Your task to perform on an android device: snooze an email in the gmail app Image 0: 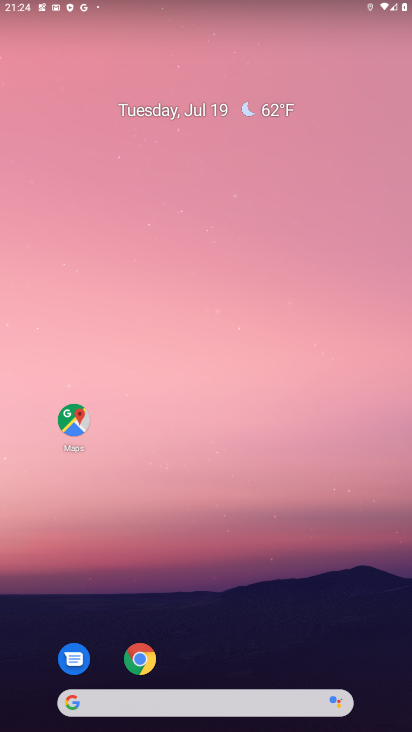
Step 0: press home button
Your task to perform on an android device: snooze an email in the gmail app Image 1: 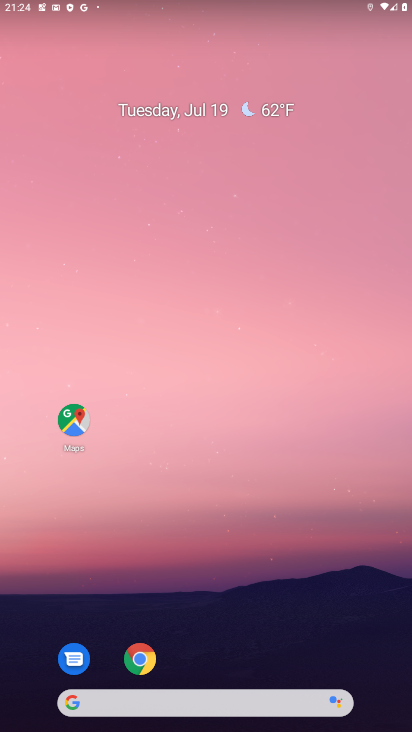
Step 1: drag from (310, 645) to (370, 0)
Your task to perform on an android device: snooze an email in the gmail app Image 2: 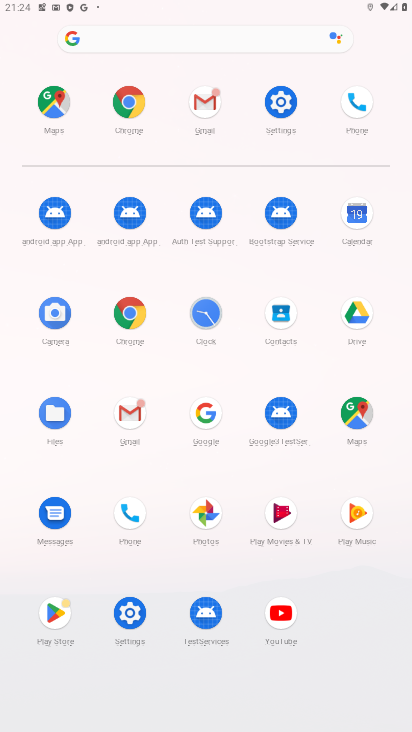
Step 2: click (213, 133)
Your task to perform on an android device: snooze an email in the gmail app Image 3: 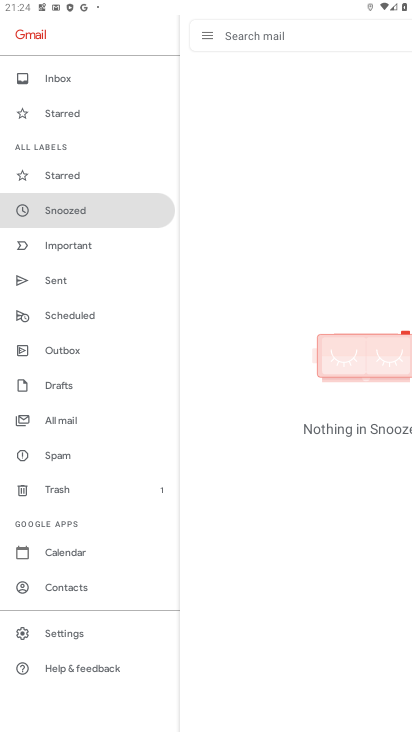
Step 3: click (37, 77)
Your task to perform on an android device: snooze an email in the gmail app Image 4: 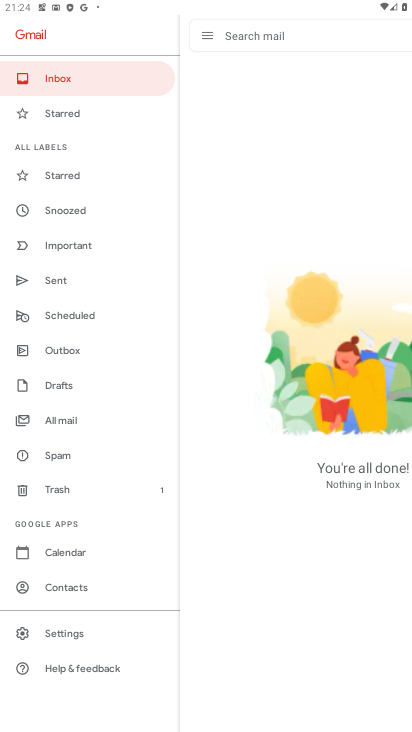
Step 4: task complete